Your task to perform on an android device: Toggle the flashlight Image 0: 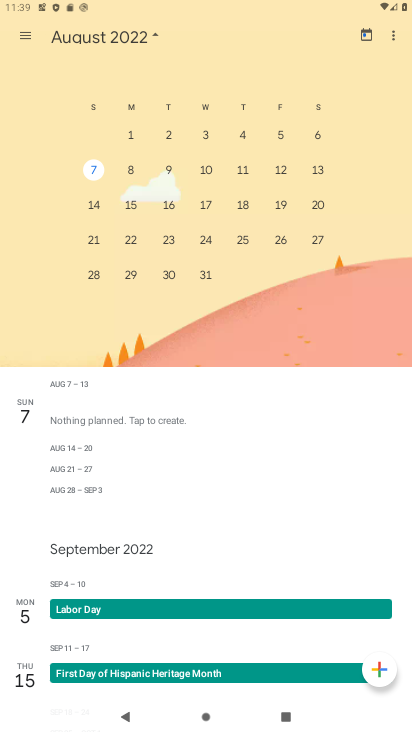
Step 0: press home button
Your task to perform on an android device: Toggle the flashlight Image 1: 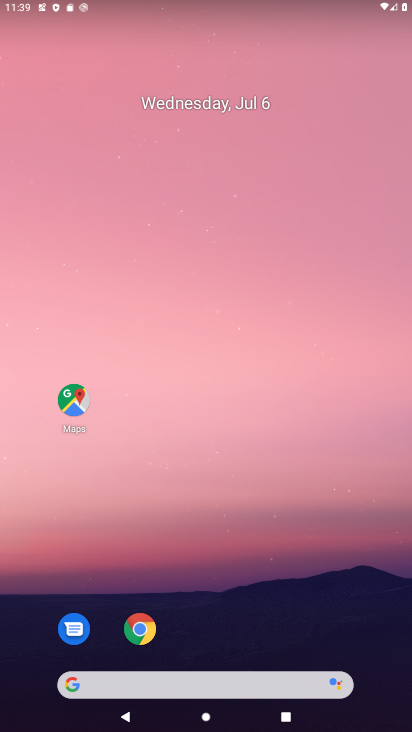
Step 1: drag from (224, 613) to (227, 231)
Your task to perform on an android device: Toggle the flashlight Image 2: 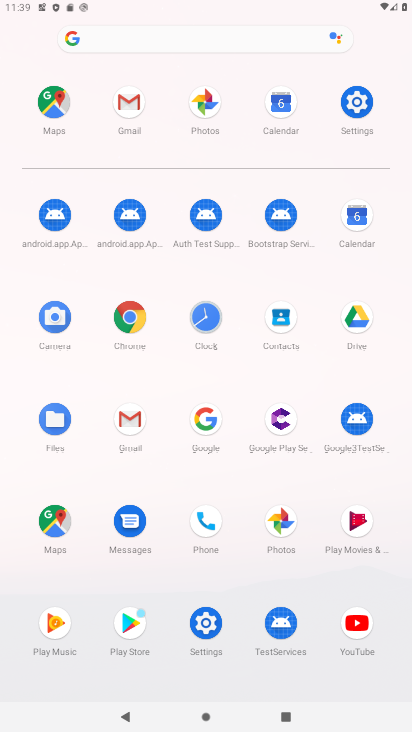
Step 2: click (346, 115)
Your task to perform on an android device: Toggle the flashlight Image 3: 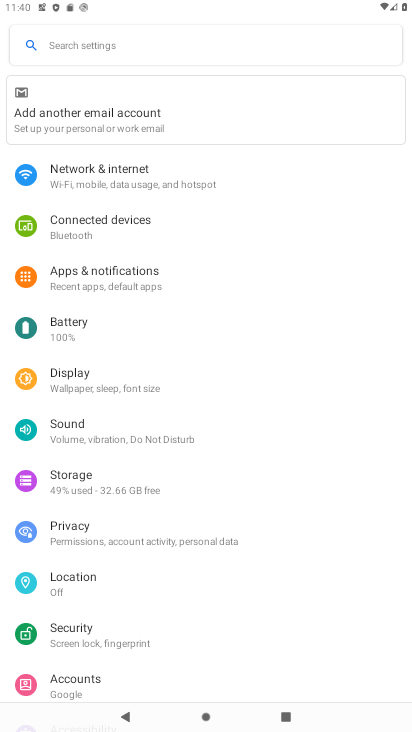
Step 3: task complete